Your task to perform on an android device: open the mobile data screen to see how much data has been used Image 0: 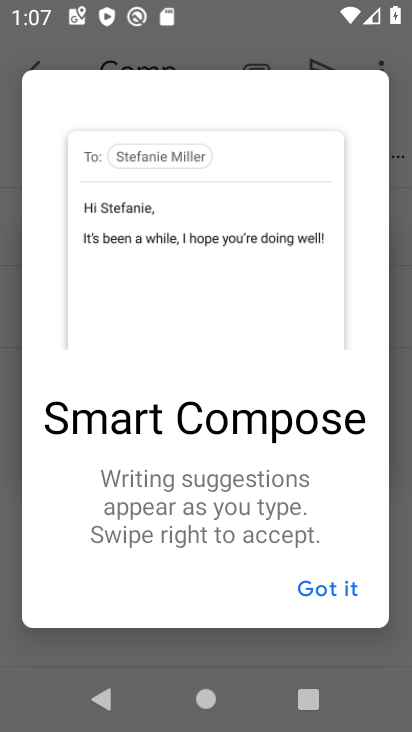
Step 0: press home button
Your task to perform on an android device: open the mobile data screen to see how much data has been used Image 1: 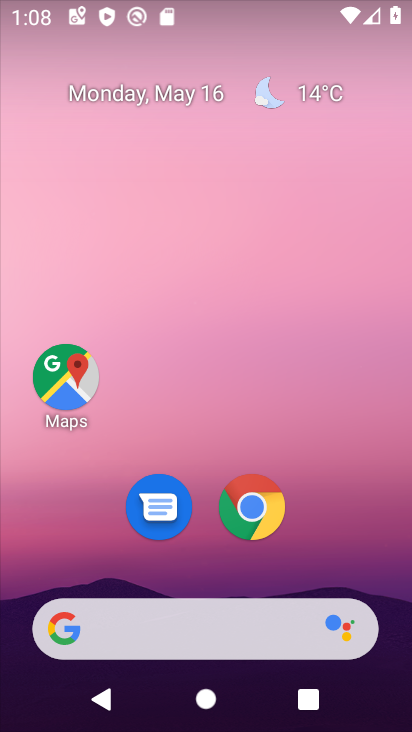
Step 1: drag from (7, 670) to (238, 92)
Your task to perform on an android device: open the mobile data screen to see how much data has been used Image 2: 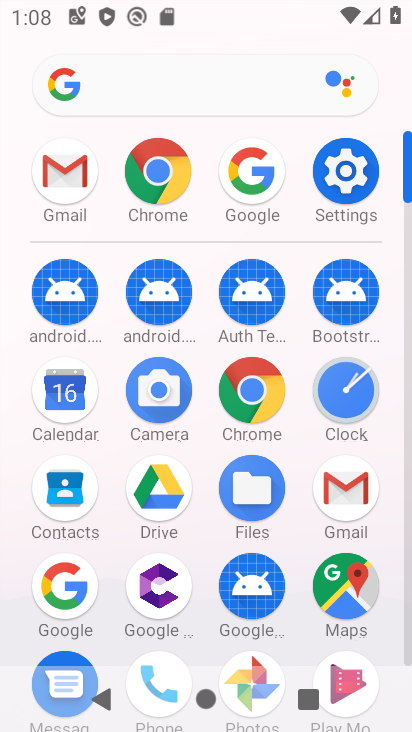
Step 2: click (359, 166)
Your task to perform on an android device: open the mobile data screen to see how much data has been used Image 3: 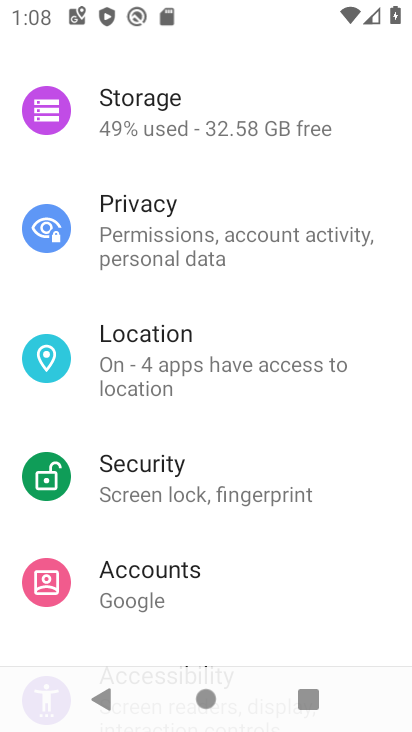
Step 3: drag from (269, 115) to (265, 571)
Your task to perform on an android device: open the mobile data screen to see how much data has been used Image 4: 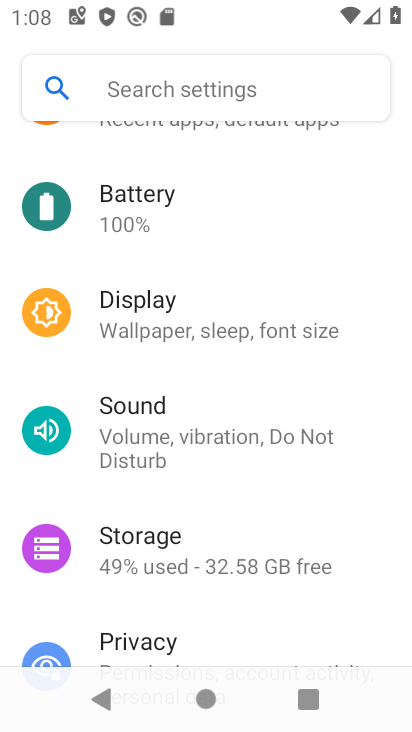
Step 4: drag from (297, 185) to (231, 509)
Your task to perform on an android device: open the mobile data screen to see how much data has been used Image 5: 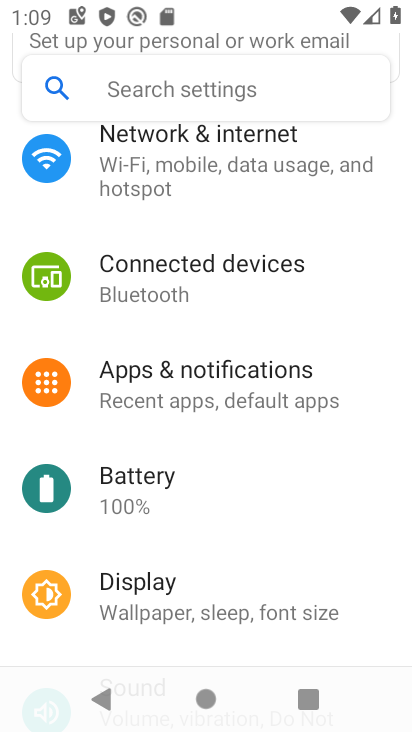
Step 5: drag from (250, 152) to (226, 465)
Your task to perform on an android device: open the mobile data screen to see how much data has been used Image 6: 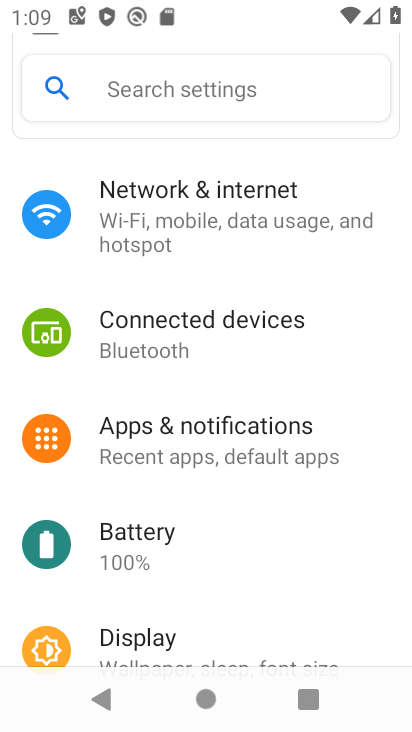
Step 6: click (185, 202)
Your task to perform on an android device: open the mobile data screen to see how much data has been used Image 7: 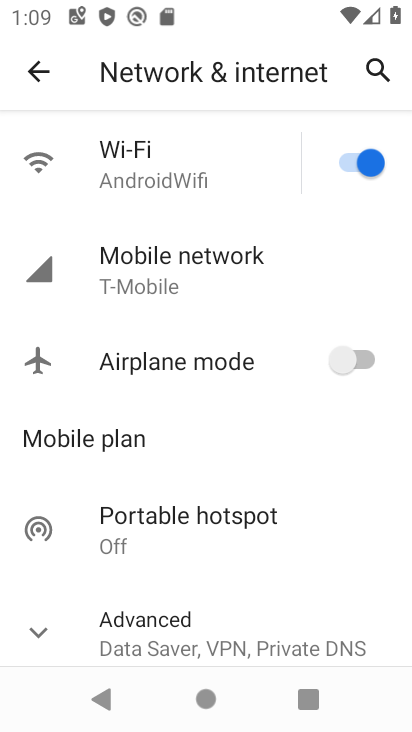
Step 7: click (207, 255)
Your task to perform on an android device: open the mobile data screen to see how much data has been used Image 8: 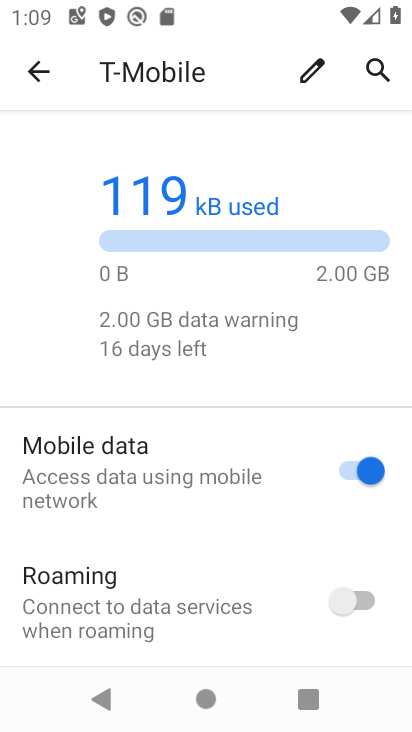
Step 8: task complete